Your task to perform on an android device: Open Youtube and go to the subscriptions tab Image 0: 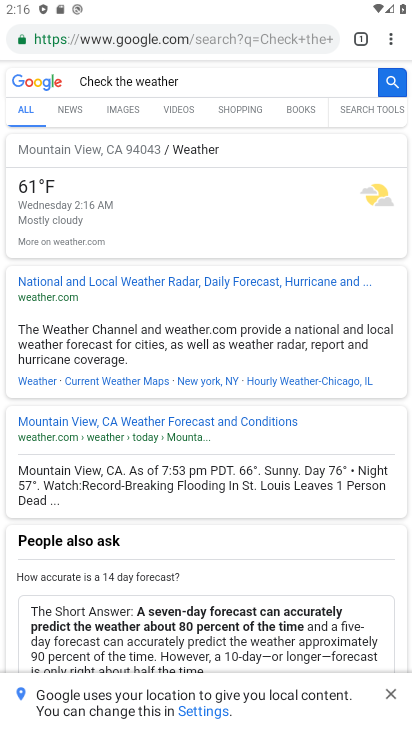
Step 0: press home button
Your task to perform on an android device: Open Youtube and go to the subscriptions tab Image 1: 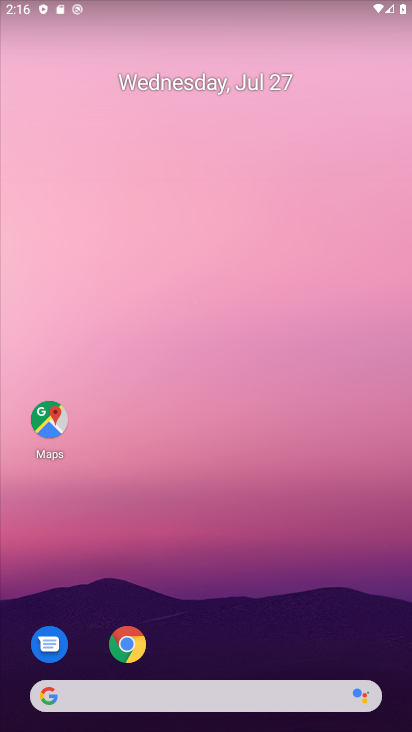
Step 1: drag from (320, 648) to (252, 146)
Your task to perform on an android device: Open Youtube and go to the subscriptions tab Image 2: 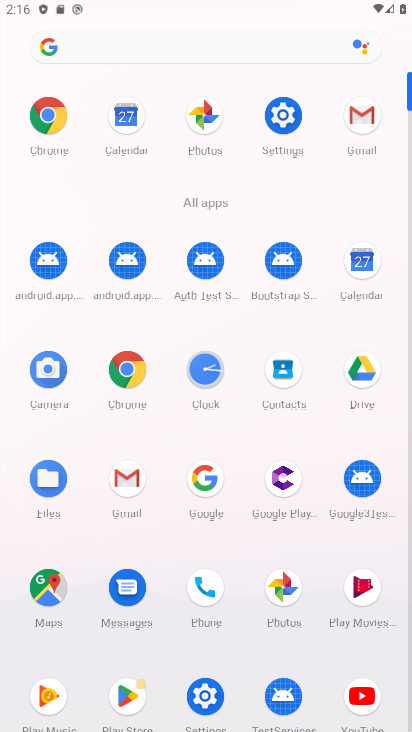
Step 2: click (365, 695)
Your task to perform on an android device: Open Youtube and go to the subscriptions tab Image 3: 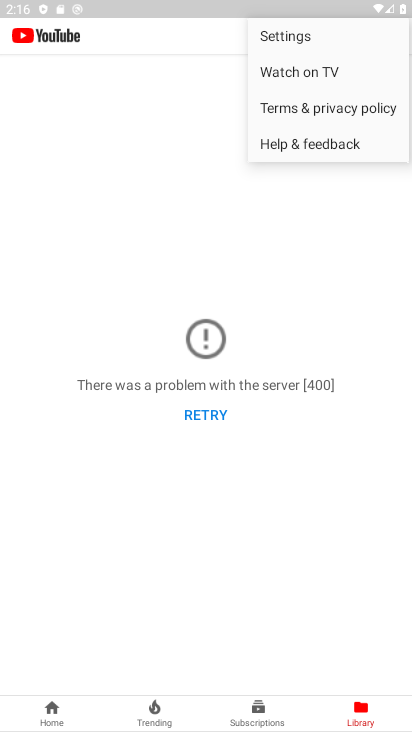
Step 3: click (251, 718)
Your task to perform on an android device: Open Youtube and go to the subscriptions tab Image 4: 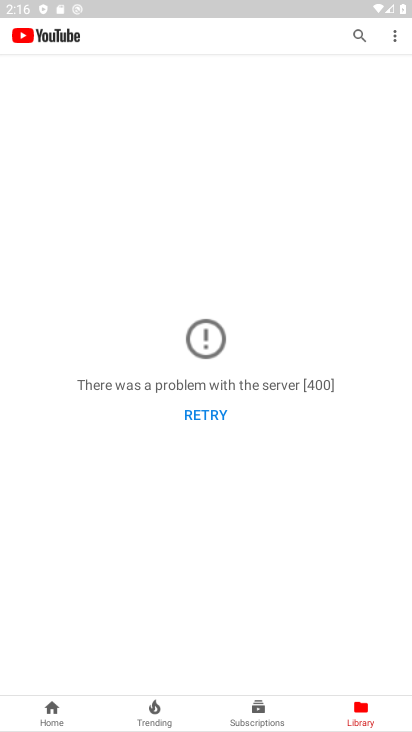
Step 4: click (265, 720)
Your task to perform on an android device: Open Youtube and go to the subscriptions tab Image 5: 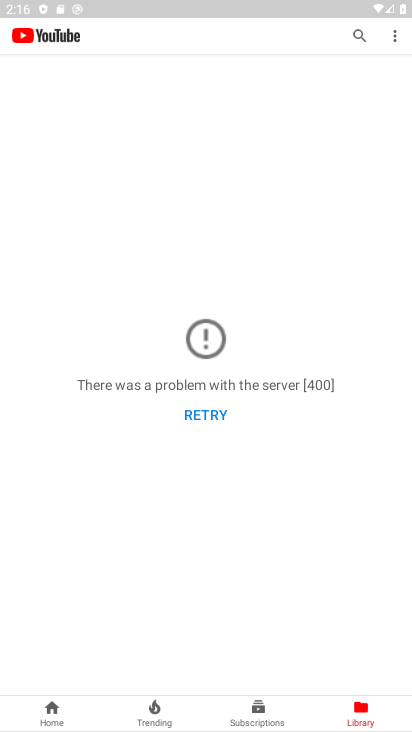
Step 5: click (261, 710)
Your task to perform on an android device: Open Youtube and go to the subscriptions tab Image 6: 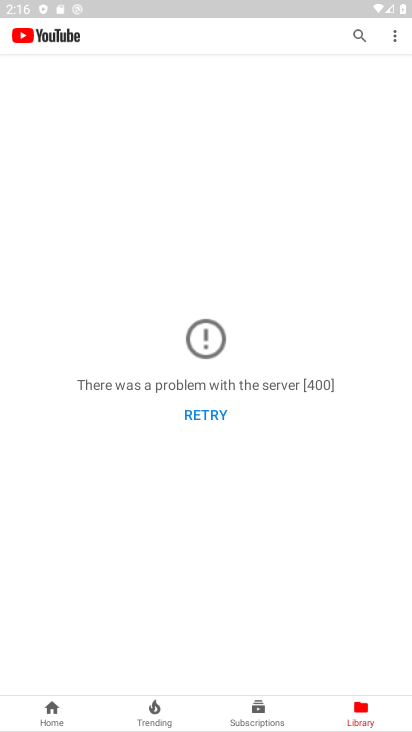
Step 6: click (261, 710)
Your task to perform on an android device: Open Youtube and go to the subscriptions tab Image 7: 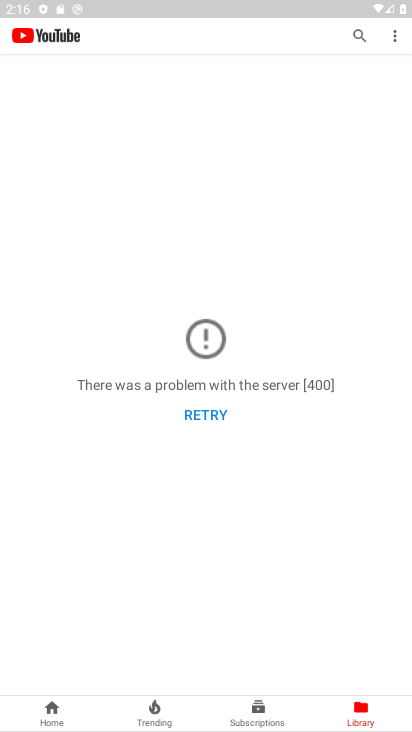
Step 7: task complete